Your task to perform on an android device: Open the calendar app, open the side menu, and click the "Day" option Image 0: 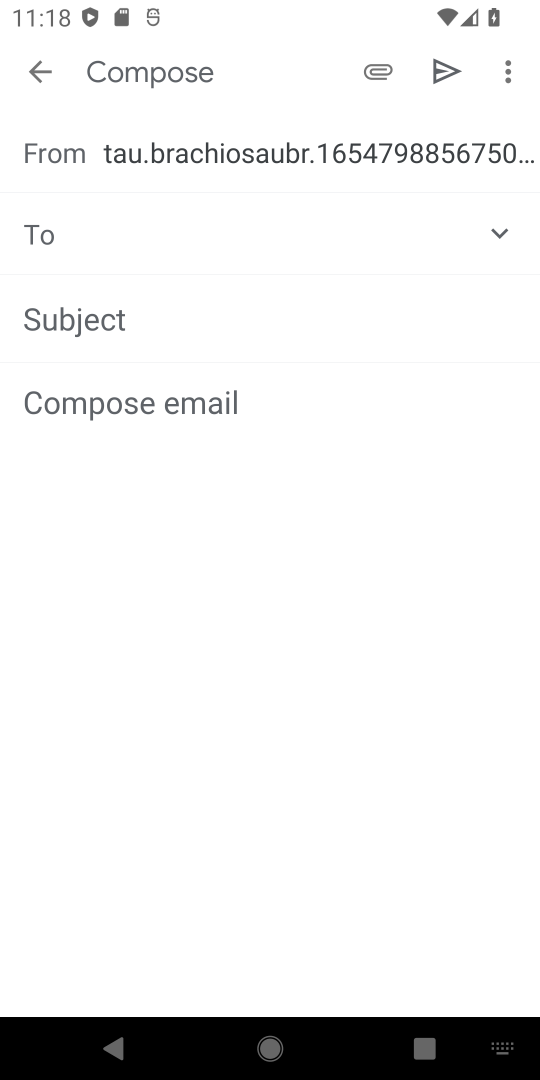
Step 0: press home button
Your task to perform on an android device: Open the calendar app, open the side menu, and click the "Day" option Image 1: 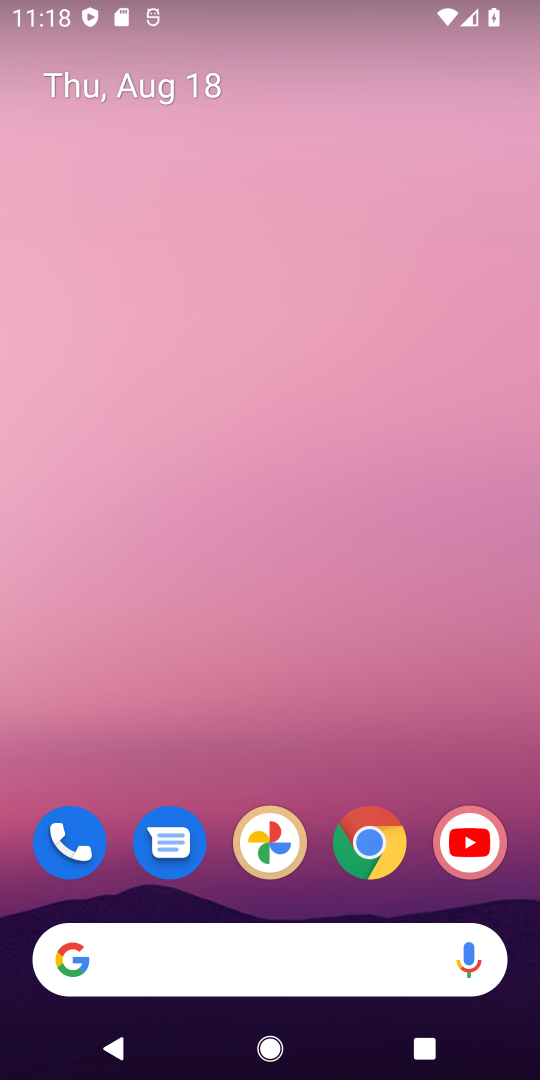
Step 1: click (139, 93)
Your task to perform on an android device: Open the calendar app, open the side menu, and click the "Day" option Image 2: 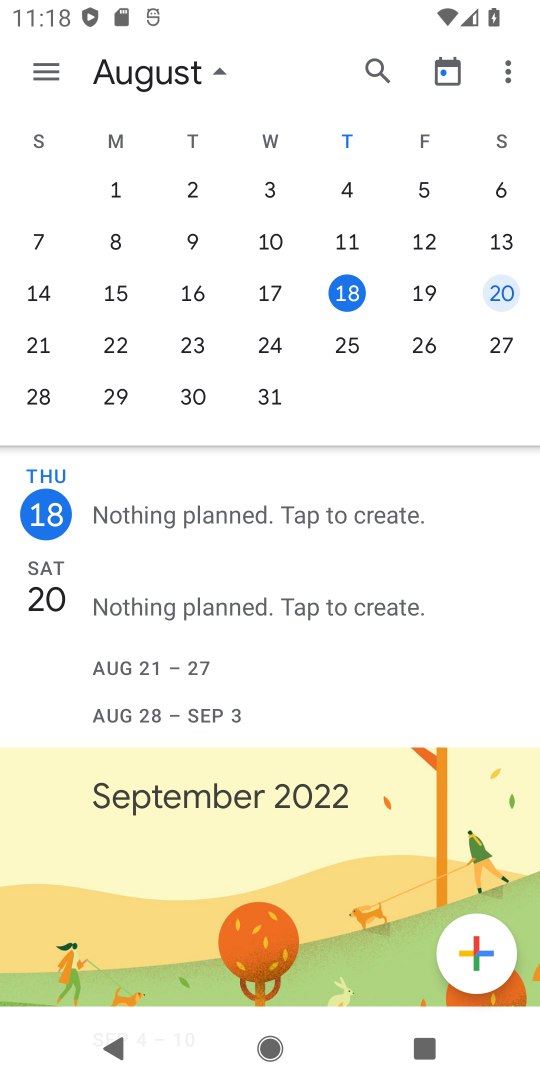
Step 2: click (39, 68)
Your task to perform on an android device: Open the calendar app, open the side menu, and click the "Day" option Image 3: 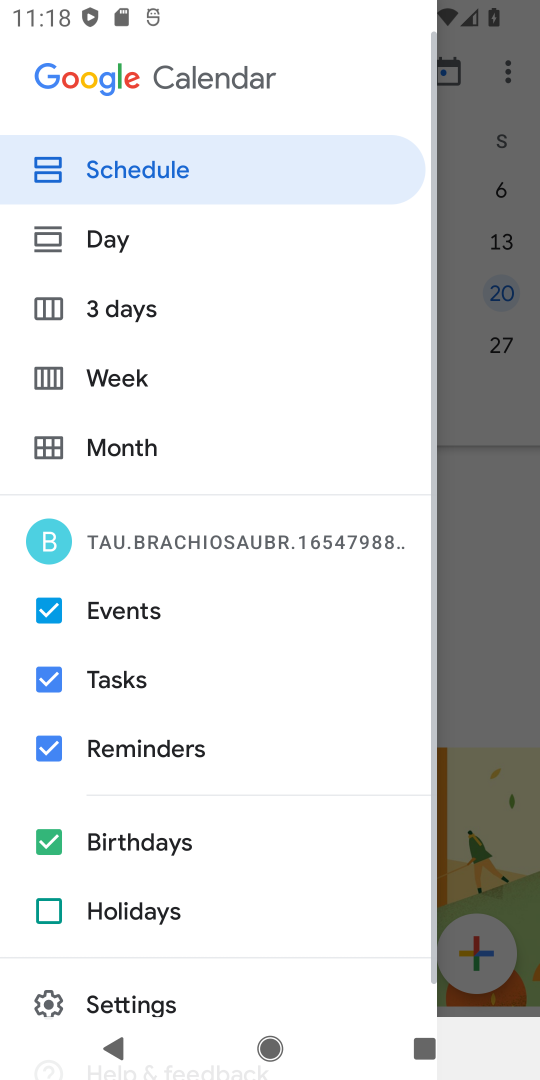
Step 3: click (119, 235)
Your task to perform on an android device: Open the calendar app, open the side menu, and click the "Day" option Image 4: 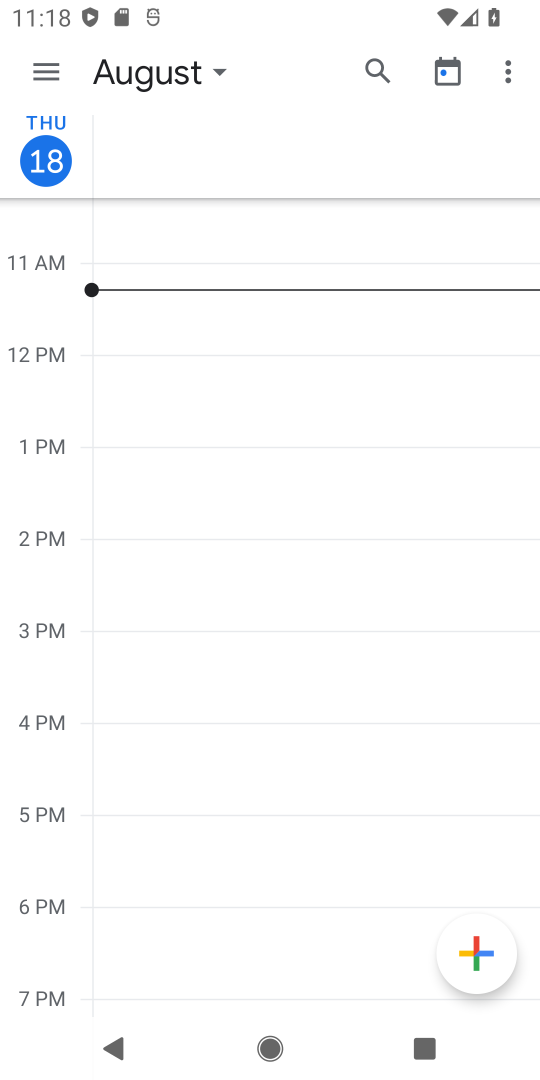
Step 4: task complete